Your task to perform on an android device: read, delete, or share a saved page in the chrome app Image 0: 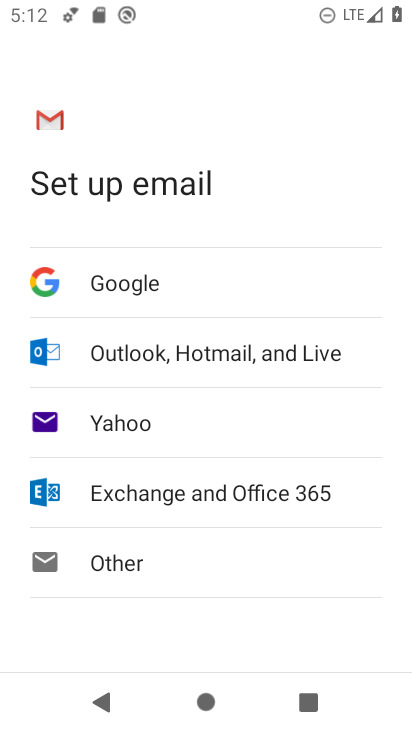
Step 0: press home button
Your task to perform on an android device: read, delete, or share a saved page in the chrome app Image 1: 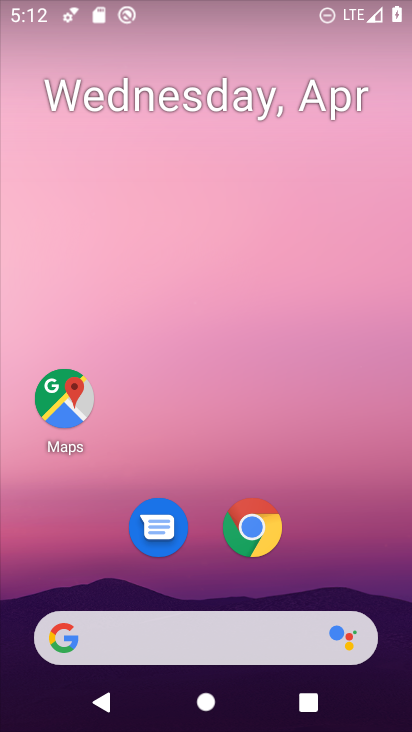
Step 1: click (254, 530)
Your task to perform on an android device: read, delete, or share a saved page in the chrome app Image 2: 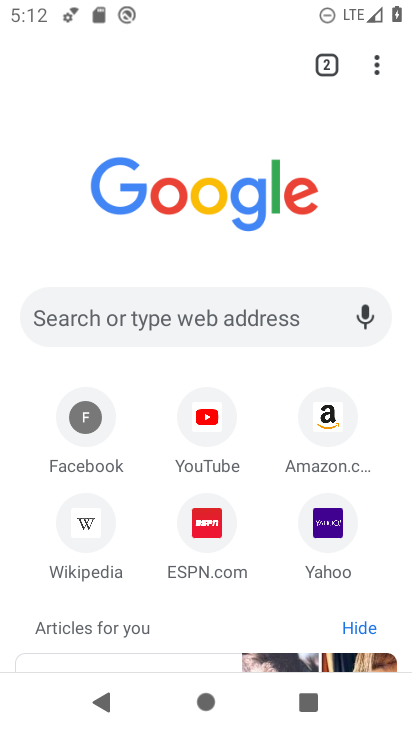
Step 2: click (377, 69)
Your task to perform on an android device: read, delete, or share a saved page in the chrome app Image 3: 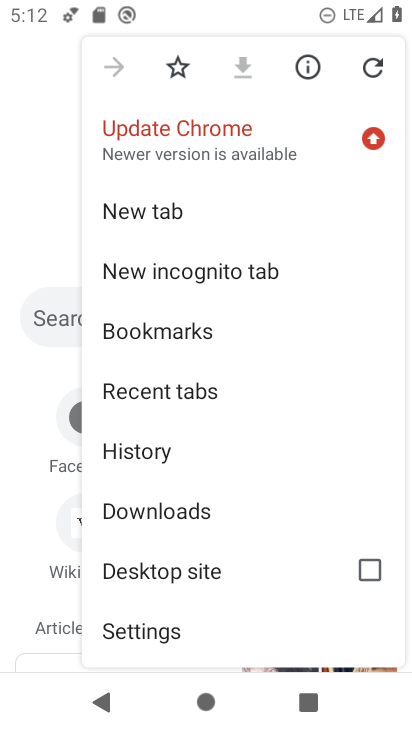
Step 3: click (177, 515)
Your task to perform on an android device: read, delete, or share a saved page in the chrome app Image 4: 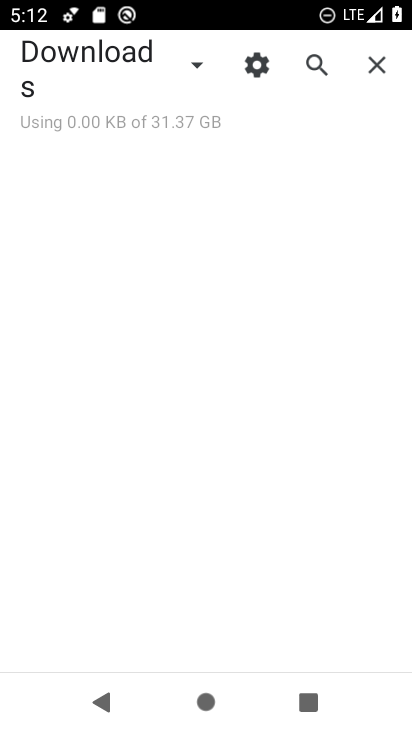
Step 4: click (196, 67)
Your task to perform on an android device: read, delete, or share a saved page in the chrome app Image 5: 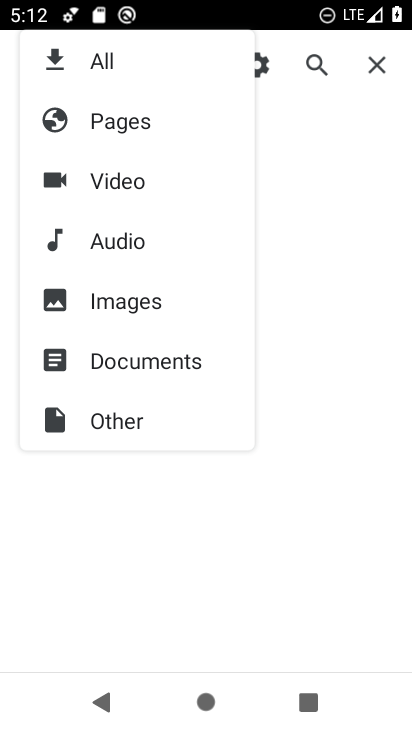
Step 5: click (103, 125)
Your task to perform on an android device: read, delete, or share a saved page in the chrome app Image 6: 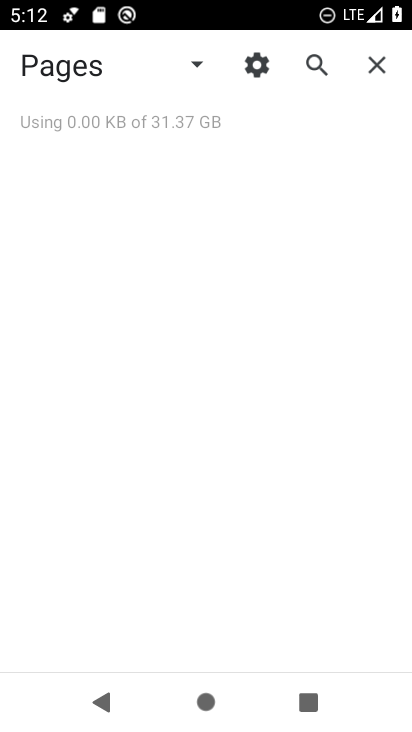
Step 6: task complete